Your task to perform on an android device: Go to Google maps Image 0: 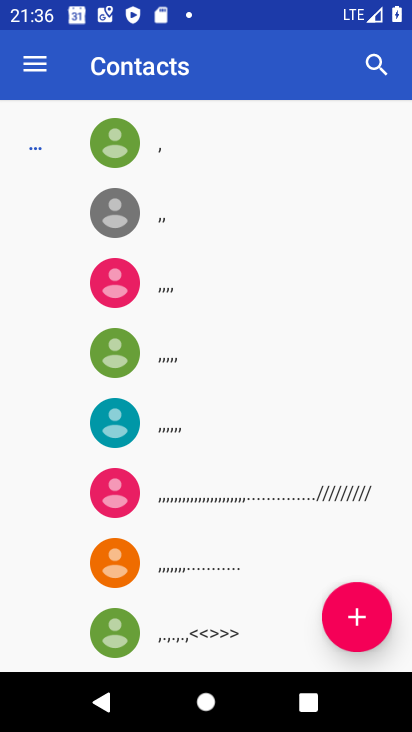
Step 0: press home button
Your task to perform on an android device: Go to Google maps Image 1: 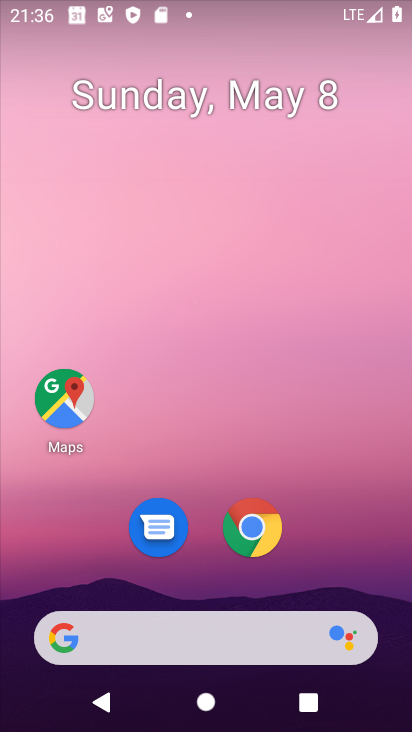
Step 1: click (64, 401)
Your task to perform on an android device: Go to Google maps Image 2: 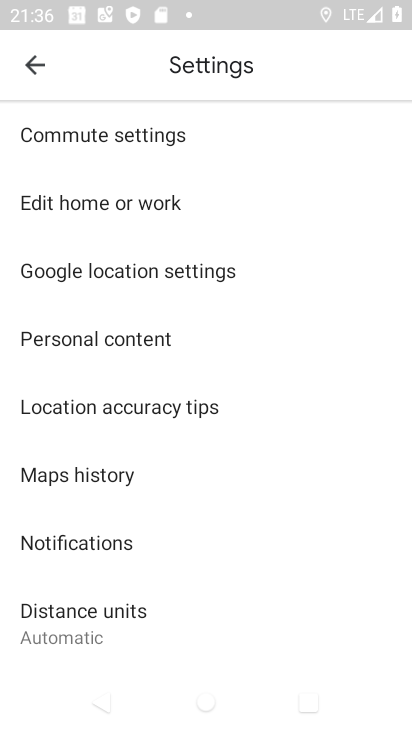
Step 2: task complete